Your task to perform on an android device: Open the map Image 0: 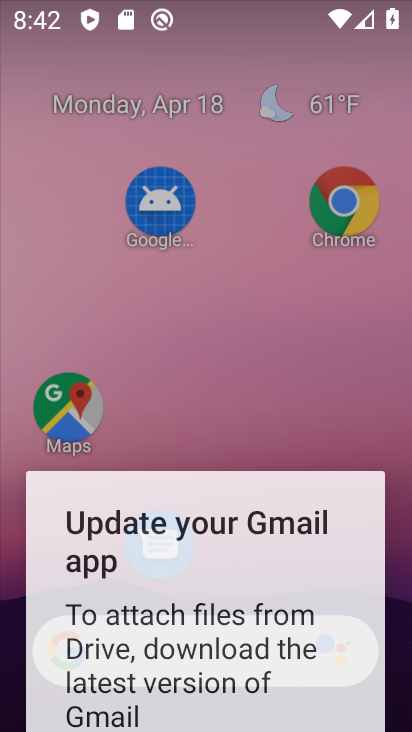
Step 0: drag from (230, 584) to (296, 42)
Your task to perform on an android device: Open the map Image 1: 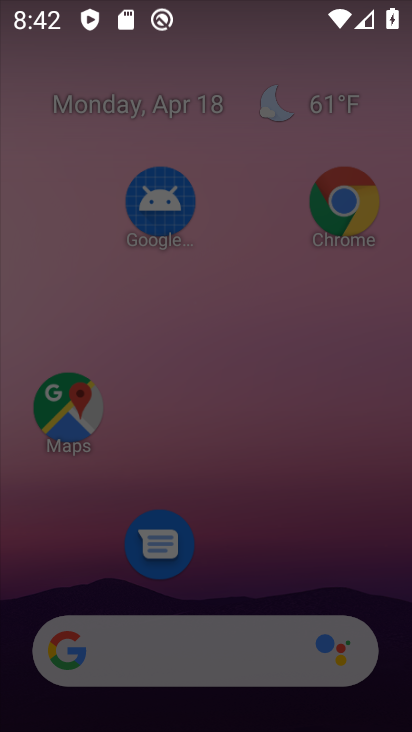
Step 1: click (289, 504)
Your task to perform on an android device: Open the map Image 2: 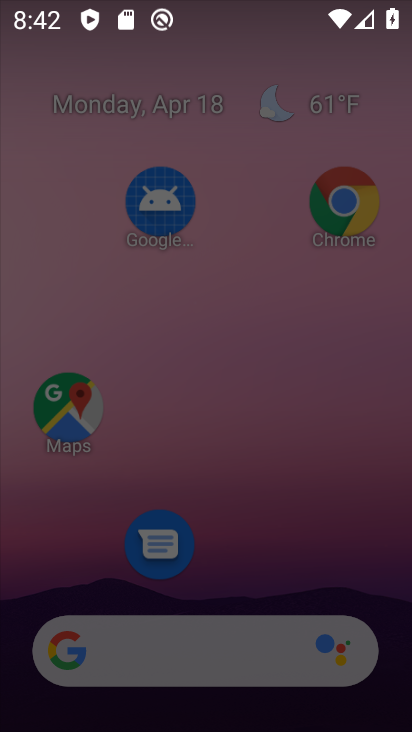
Step 2: press home button
Your task to perform on an android device: Open the map Image 3: 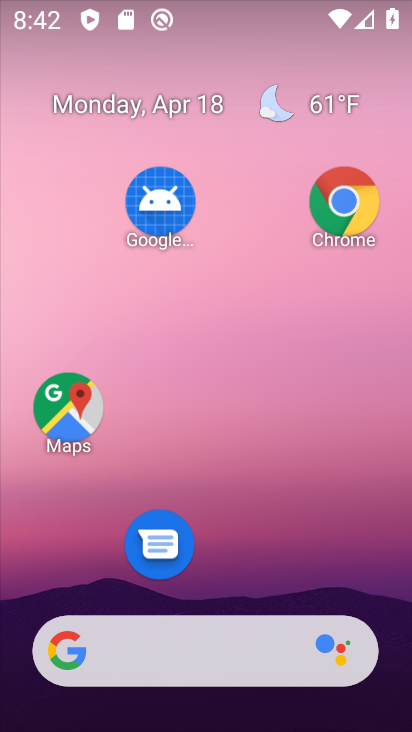
Step 3: click (58, 381)
Your task to perform on an android device: Open the map Image 4: 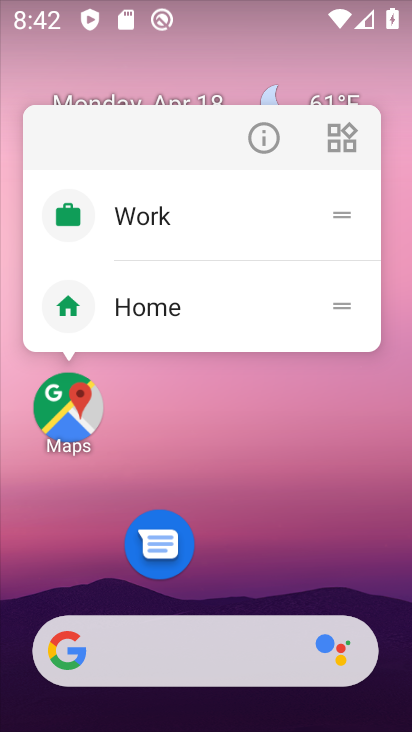
Step 4: click (82, 438)
Your task to perform on an android device: Open the map Image 5: 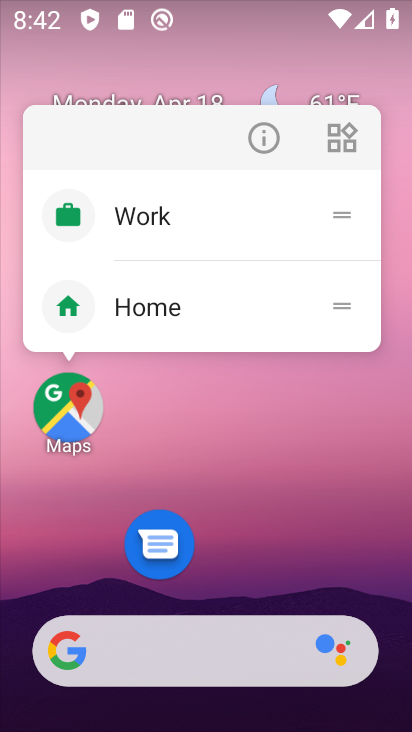
Step 5: click (81, 437)
Your task to perform on an android device: Open the map Image 6: 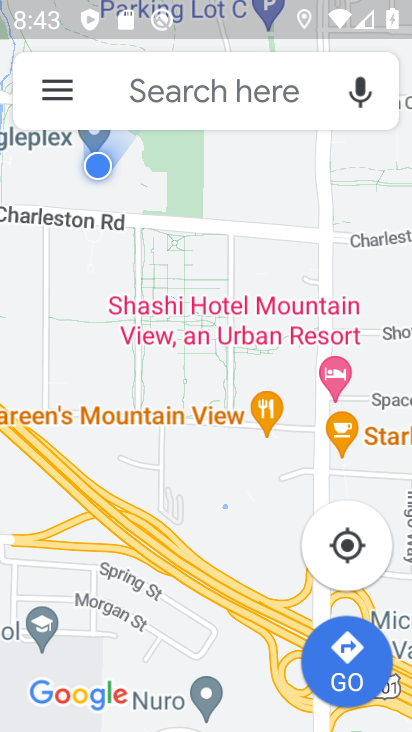
Step 6: click (81, 437)
Your task to perform on an android device: Open the map Image 7: 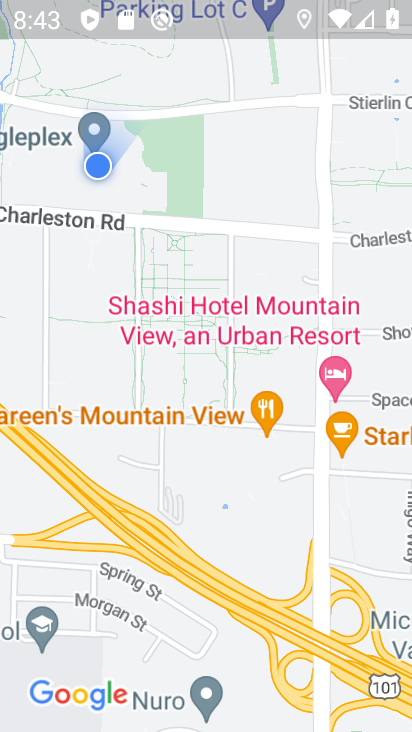
Step 7: task complete